Your task to perform on an android device: turn off smart reply in the gmail app Image 0: 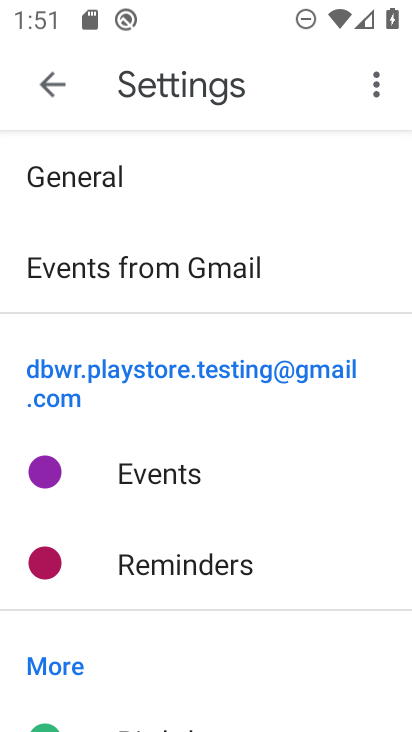
Step 0: press home button
Your task to perform on an android device: turn off smart reply in the gmail app Image 1: 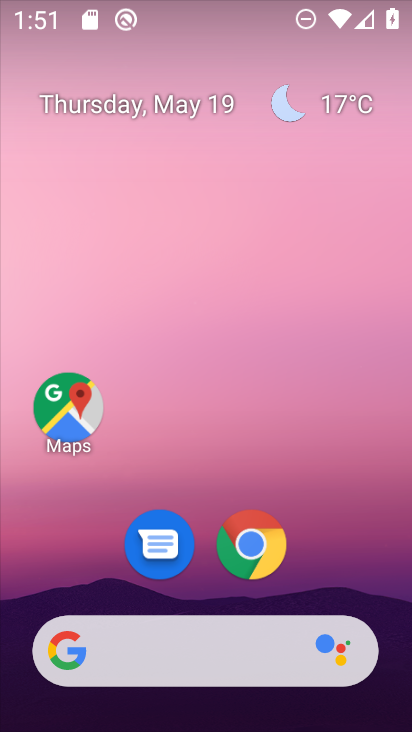
Step 1: drag from (209, 690) to (229, 220)
Your task to perform on an android device: turn off smart reply in the gmail app Image 2: 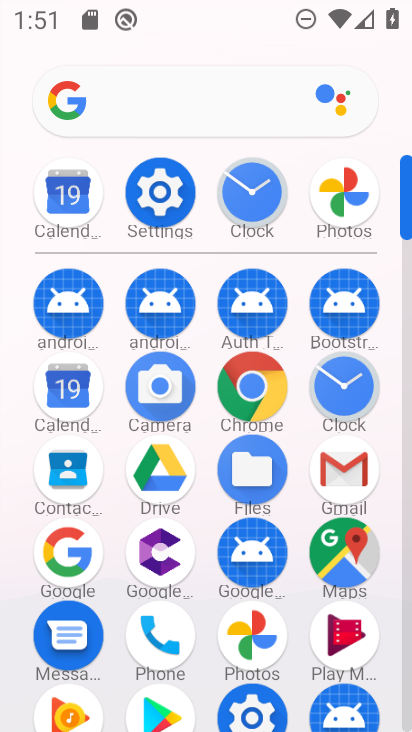
Step 2: click (334, 475)
Your task to perform on an android device: turn off smart reply in the gmail app Image 3: 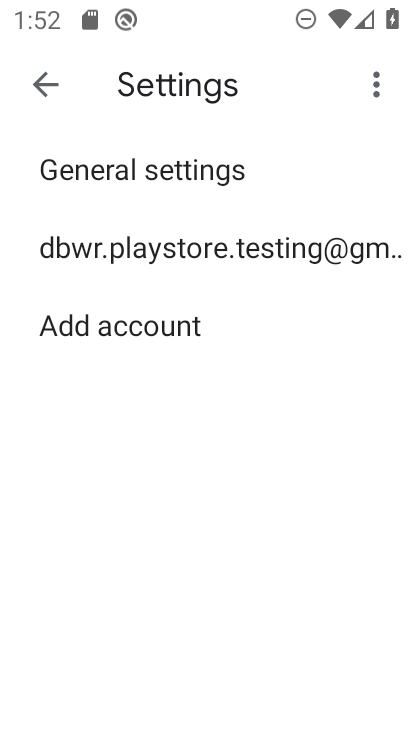
Step 3: click (223, 249)
Your task to perform on an android device: turn off smart reply in the gmail app Image 4: 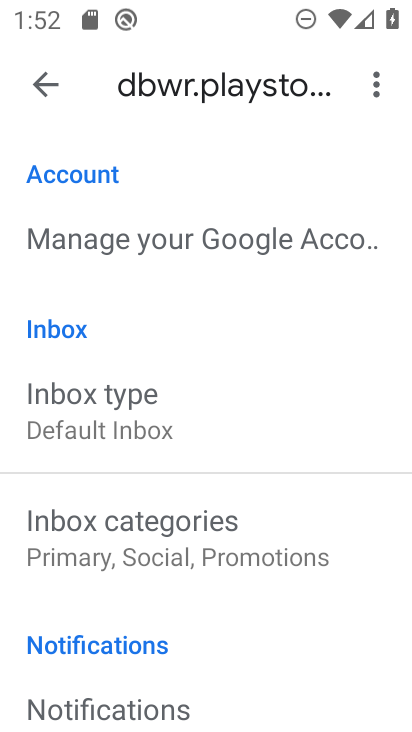
Step 4: drag from (134, 637) to (158, 417)
Your task to perform on an android device: turn off smart reply in the gmail app Image 5: 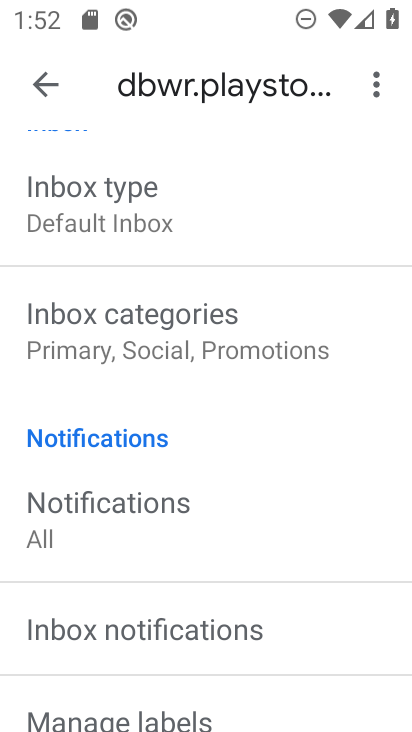
Step 5: drag from (127, 635) to (128, 290)
Your task to perform on an android device: turn off smart reply in the gmail app Image 6: 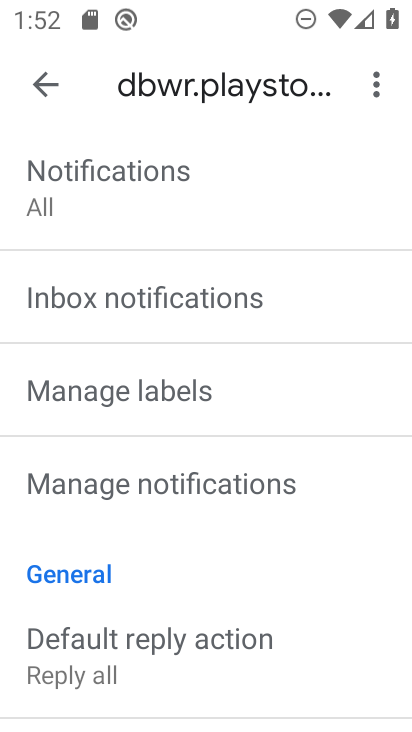
Step 6: drag from (121, 678) to (137, 300)
Your task to perform on an android device: turn off smart reply in the gmail app Image 7: 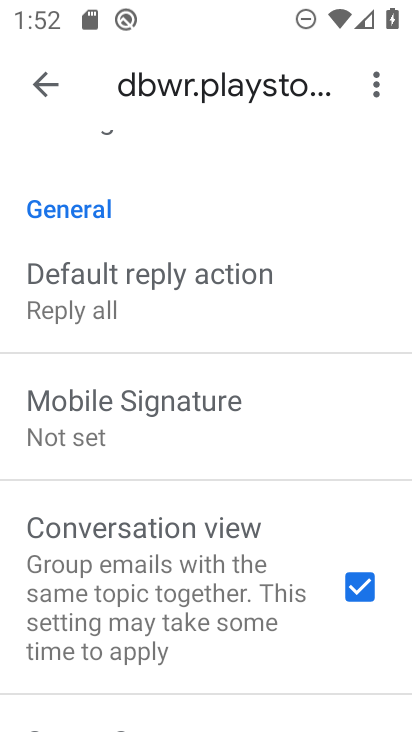
Step 7: drag from (176, 628) to (175, 361)
Your task to perform on an android device: turn off smart reply in the gmail app Image 8: 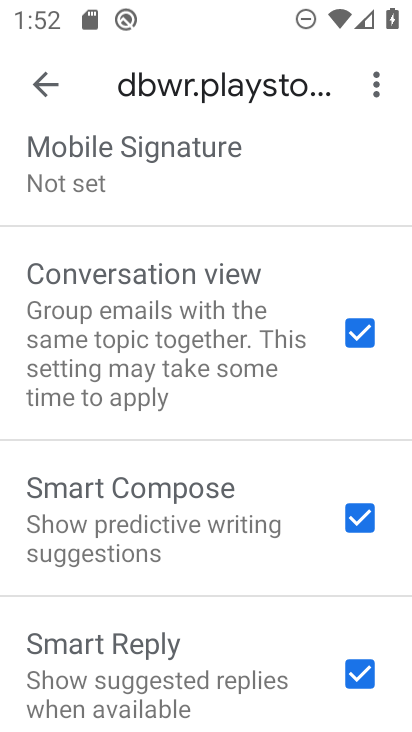
Step 8: drag from (193, 660) to (192, 509)
Your task to perform on an android device: turn off smart reply in the gmail app Image 9: 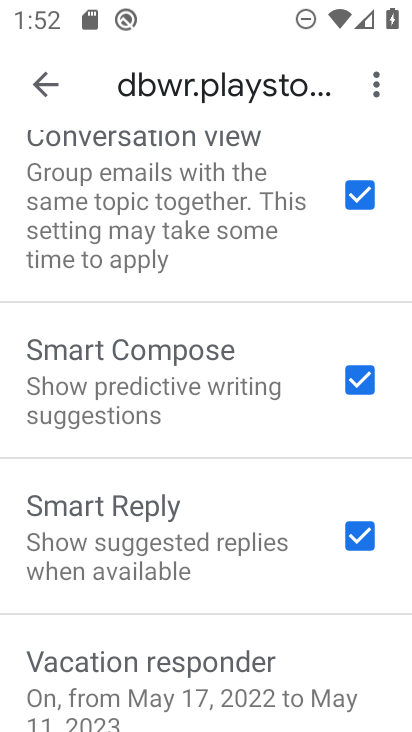
Step 9: click (358, 535)
Your task to perform on an android device: turn off smart reply in the gmail app Image 10: 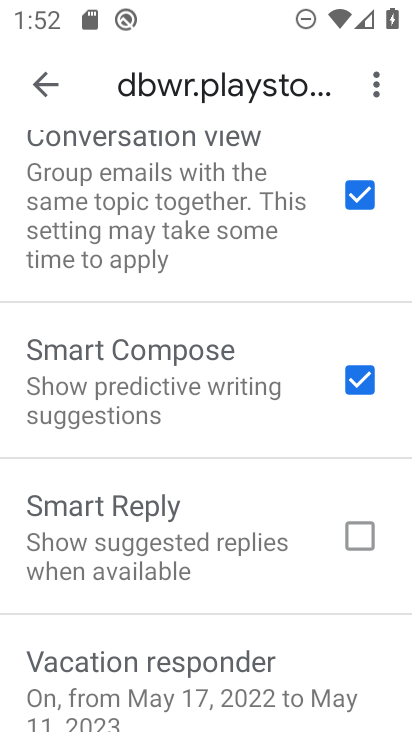
Step 10: task complete